Your task to perform on an android device: Is it going to rain tomorrow? Image 0: 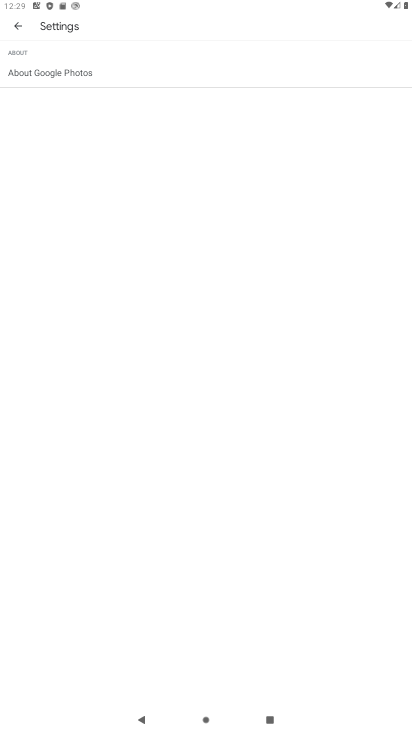
Step 0: press home button
Your task to perform on an android device: Is it going to rain tomorrow? Image 1: 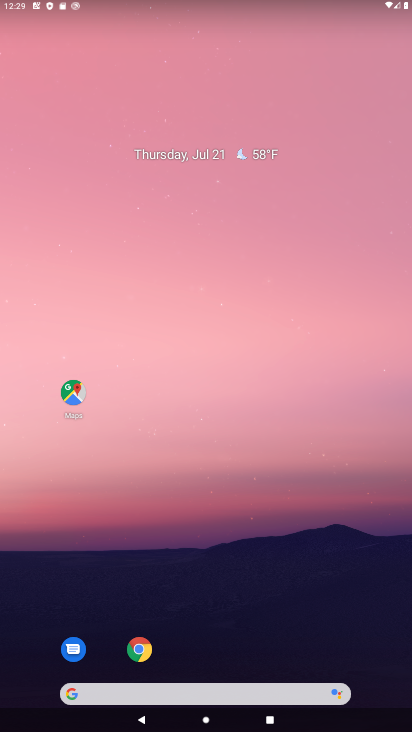
Step 1: click (261, 159)
Your task to perform on an android device: Is it going to rain tomorrow? Image 2: 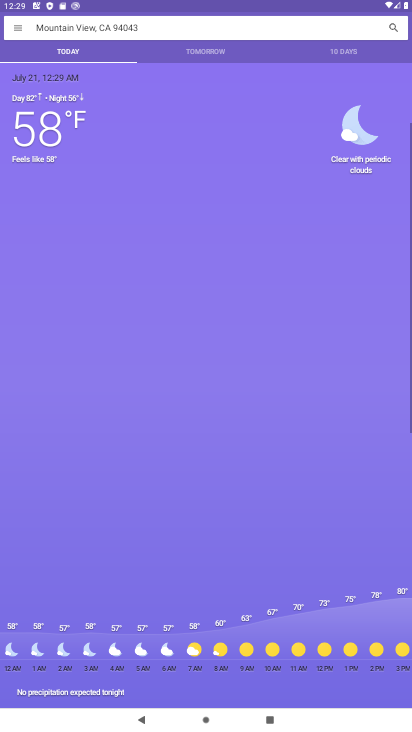
Step 2: click (199, 49)
Your task to perform on an android device: Is it going to rain tomorrow? Image 3: 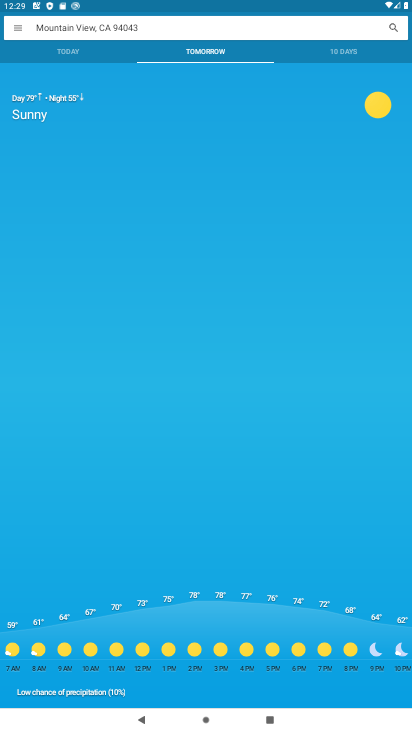
Step 3: task complete